Your task to perform on an android device: Open Android settings Image 0: 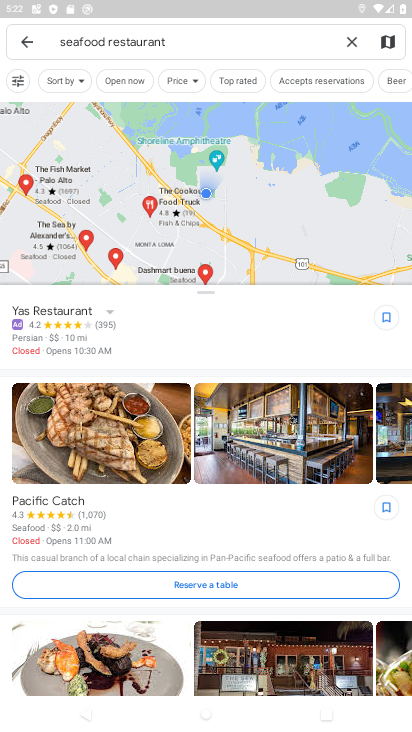
Step 0: press home button
Your task to perform on an android device: Open Android settings Image 1: 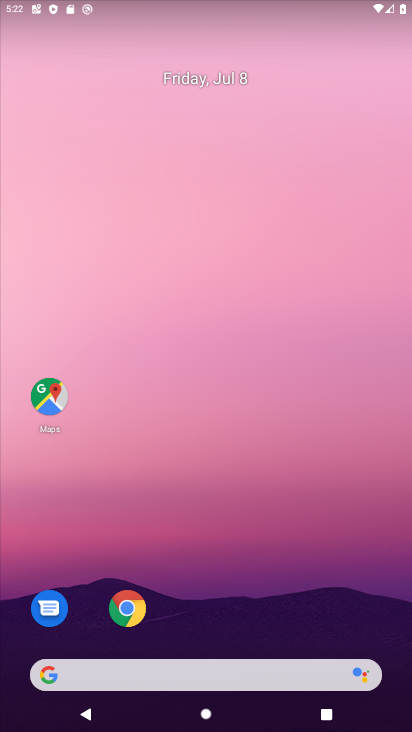
Step 1: drag from (291, 607) to (285, 27)
Your task to perform on an android device: Open Android settings Image 2: 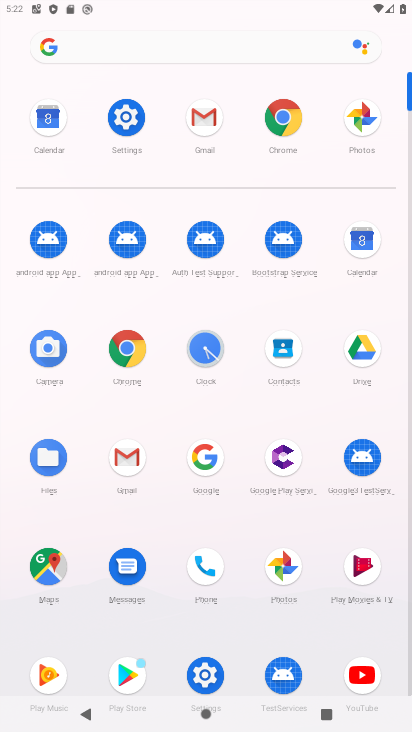
Step 2: click (132, 123)
Your task to perform on an android device: Open Android settings Image 3: 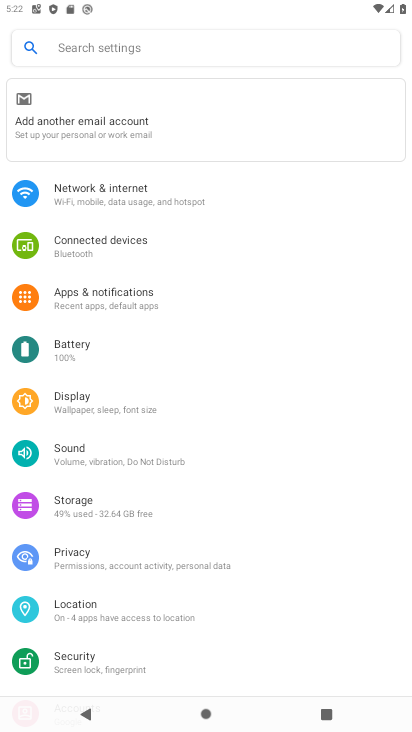
Step 3: drag from (188, 675) to (206, 186)
Your task to perform on an android device: Open Android settings Image 4: 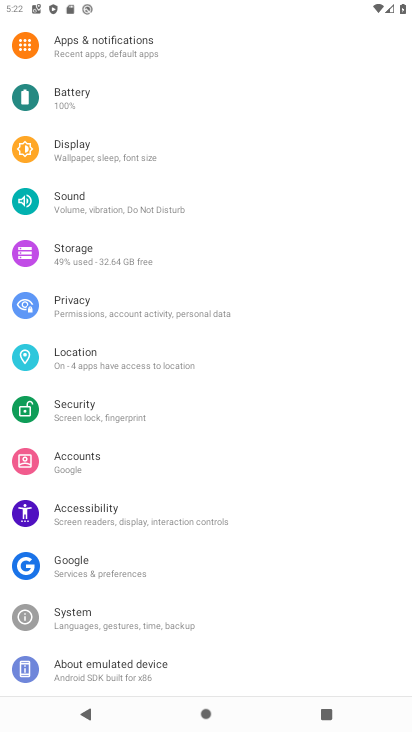
Step 4: click (164, 671)
Your task to perform on an android device: Open Android settings Image 5: 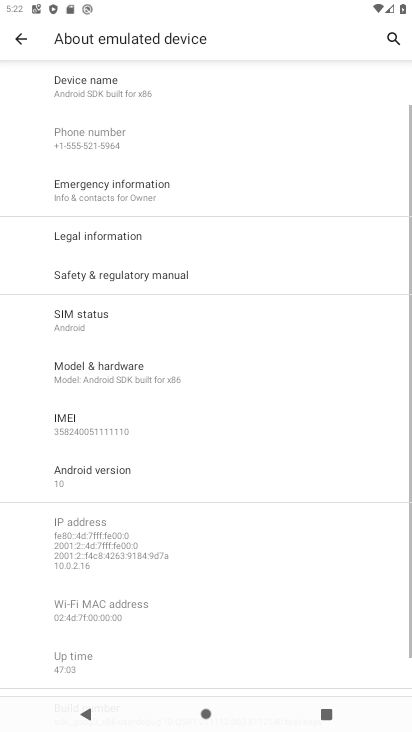
Step 5: click (107, 476)
Your task to perform on an android device: Open Android settings Image 6: 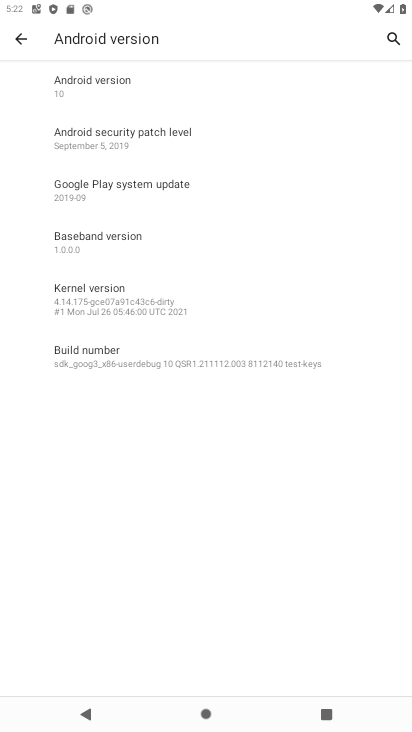
Step 6: task complete